Your task to perform on an android device: Go to notification settings Image 0: 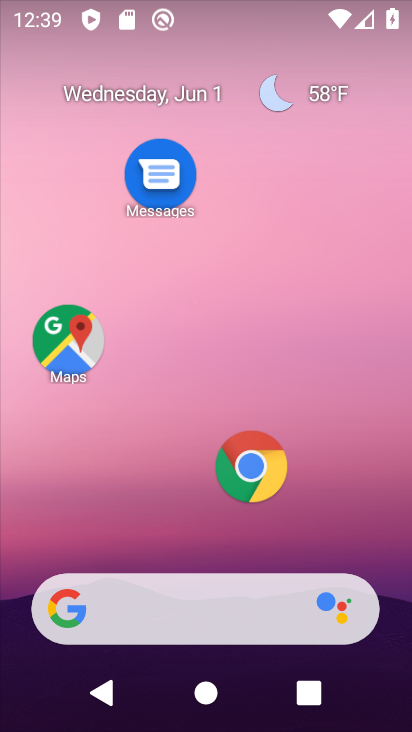
Step 0: drag from (160, 729) to (141, 1)
Your task to perform on an android device: Go to notification settings Image 1: 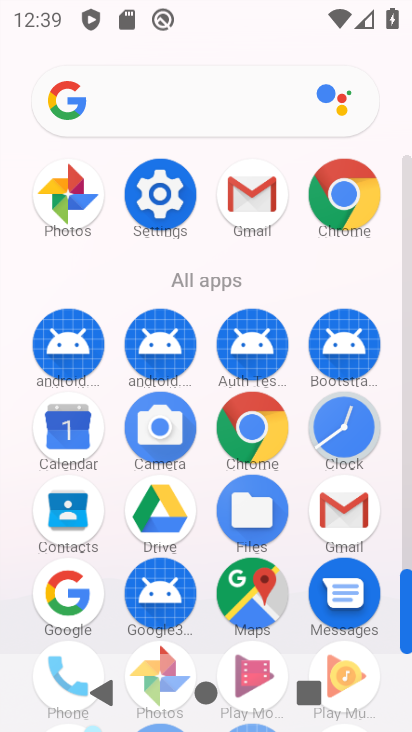
Step 1: click (173, 196)
Your task to perform on an android device: Go to notification settings Image 2: 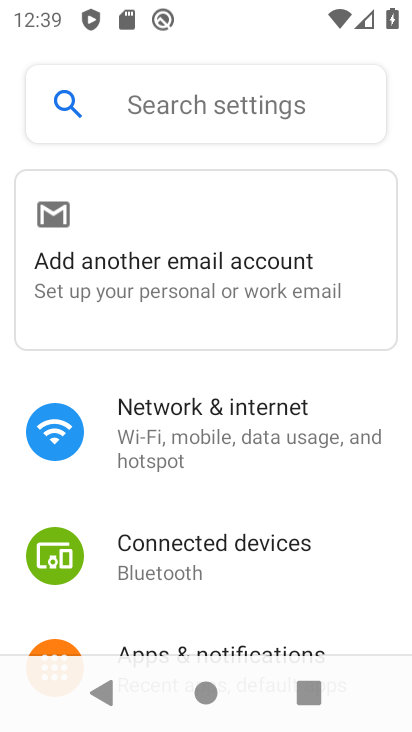
Step 2: click (196, 643)
Your task to perform on an android device: Go to notification settings Image 3: 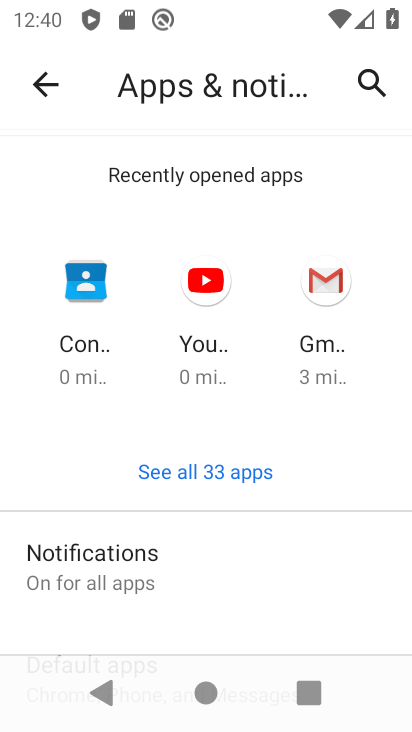
Step 3: task complete